Your task to perform on an android device: find photos in the google photos app Image 0: 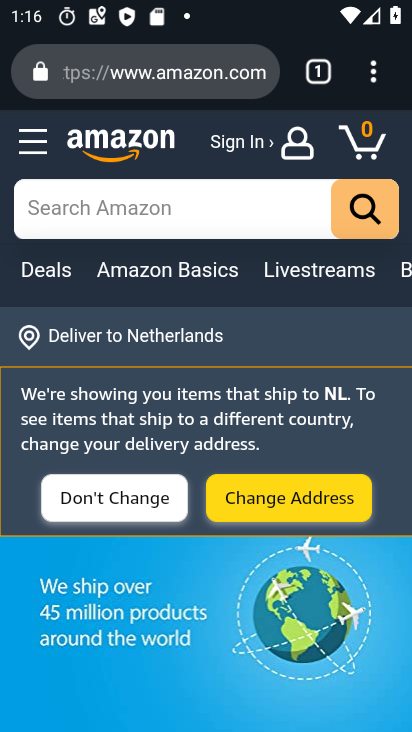
Step 0: press home button
Your task to perform on an android device: find photos in the google photos app Image 1: 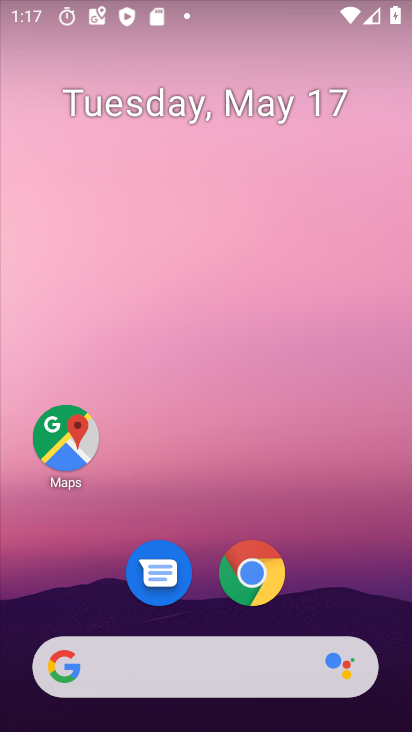
Step 1: drag from (219, 711) to (235, 49)
Your task to perform on an android device: find photos in the google photos app Image 2: 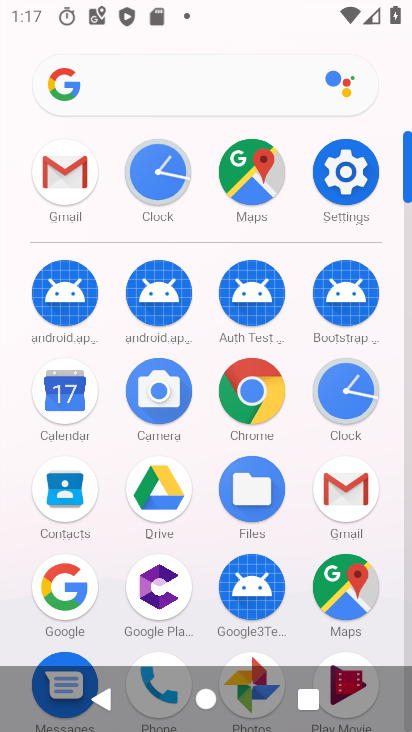
Step 2: click (260, 645)
Your task to perform on an android device: find photos in the google photos app Image 3: 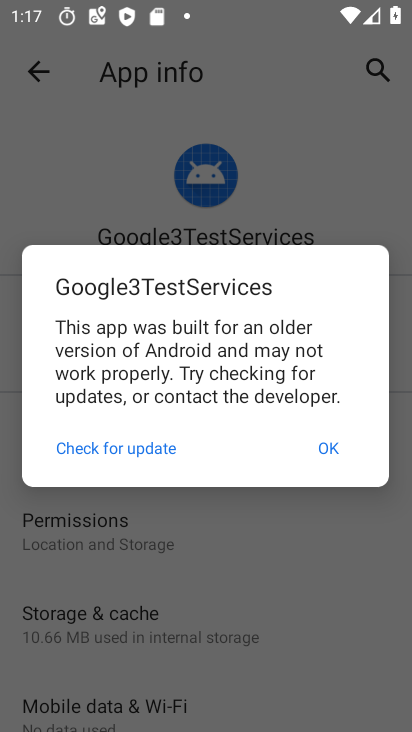
Step 3: press home button
Your task to perform on an android device: find photos in the google photos app Image 4: 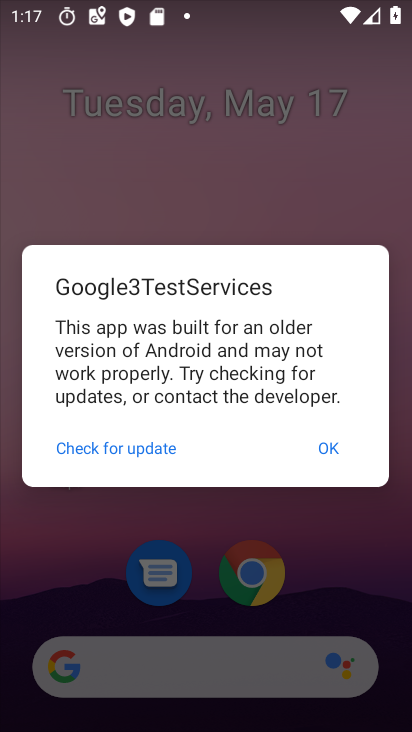
Step 4: click (332, 448)
Your task to perform on an android device: find photos in the google photos app Image 5: 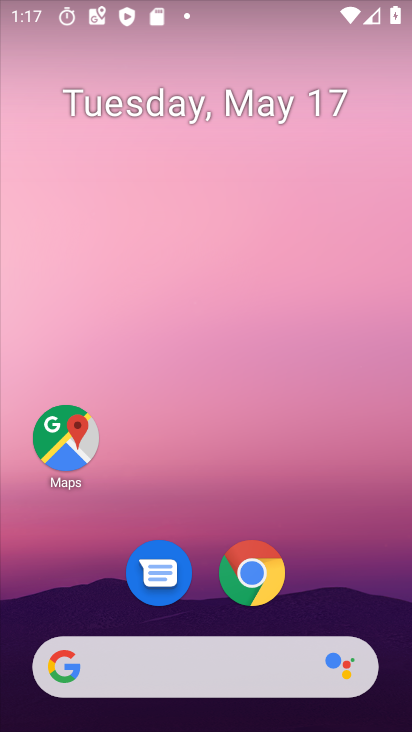
Step 5: drag from (230, 699) to (297, 16)
Your task to perform on an android device: find photos in the google photos app Image 6: 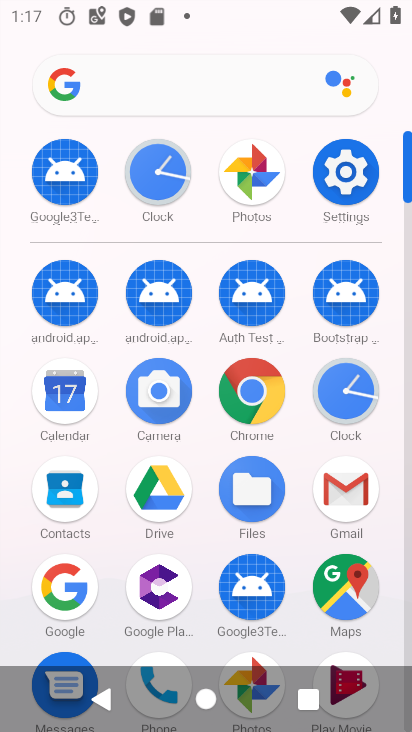
Step 6: click (263, 138)
Your task to perform on an android device: find photos in the google photos app Image 7: 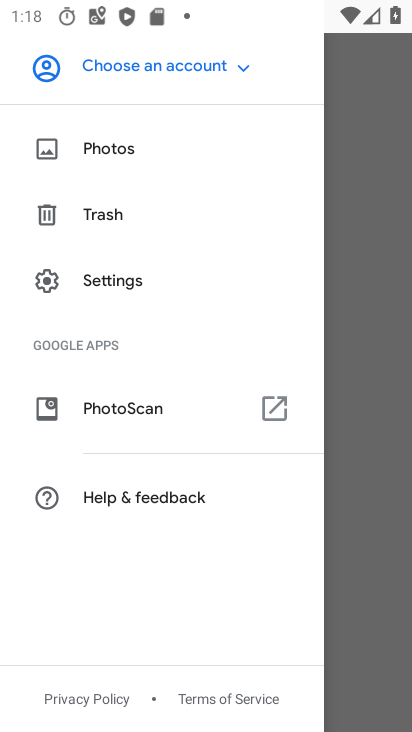
Step 7: click (117, 279)
Your task to perform on an android device: find photos in the google photos app Image 8: 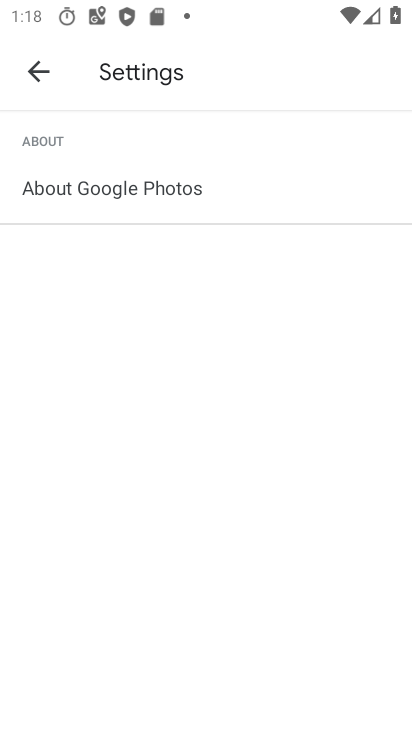
Step 8: click (58, 73)
Your task to perform on an android device: find photos in the google photos app Image 9: 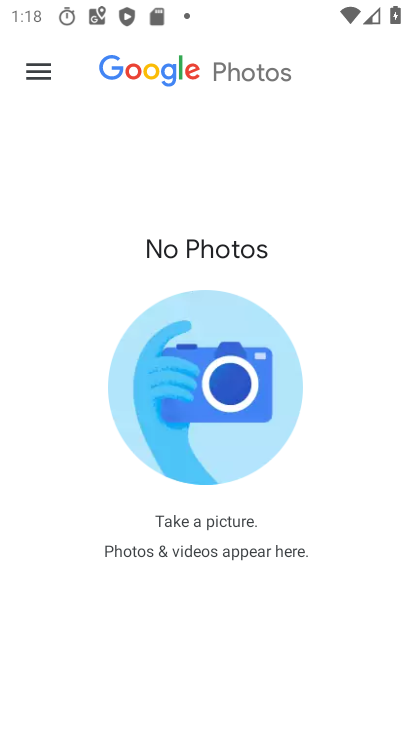
Step 9: press back button
Your task to perform on an android device: find photos in the google photos app Image 10: 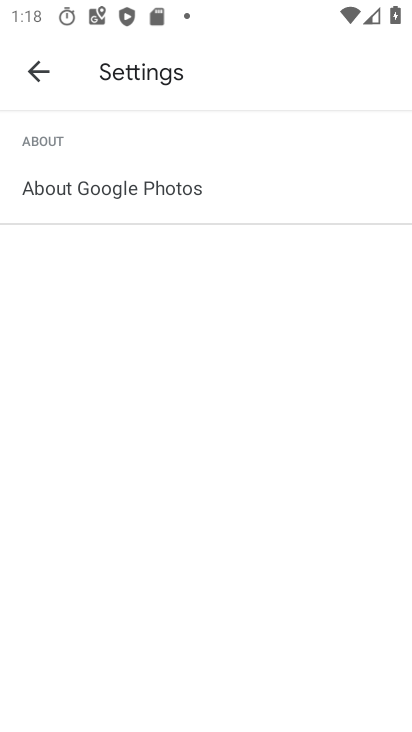
Step 10: click (37, 66)
Your task to perform on an android device: find photos in the google photos app Image 11: 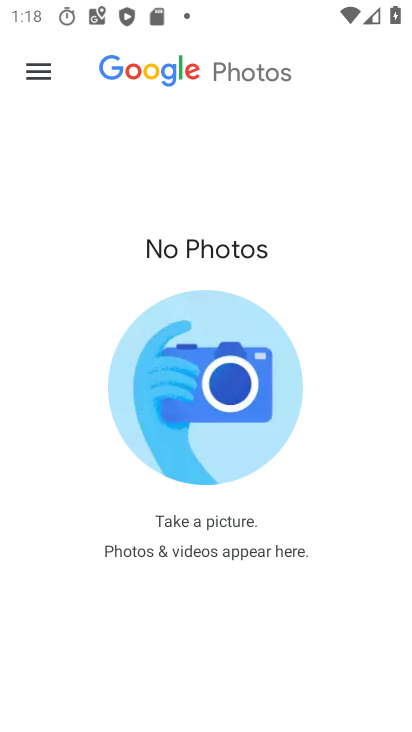
Step 11: task complete